Your task to perform on an android device: Go to eBay Image 0: 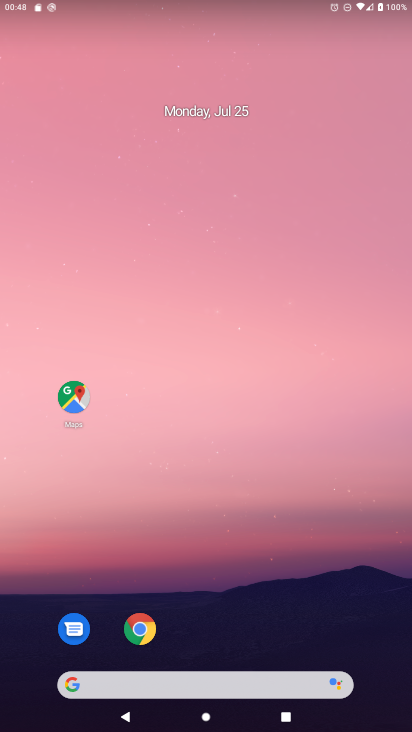
Step 0: drag from (193, 599) to (276, 20)
Your task to perform on an android device: Go to eBay Image 1: 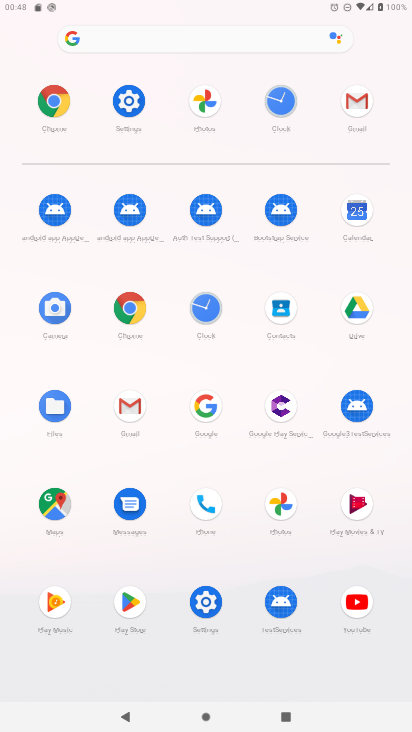
Step 1: click (157, 37)
Your task to perform on an android device: Go to eBay Image 2: 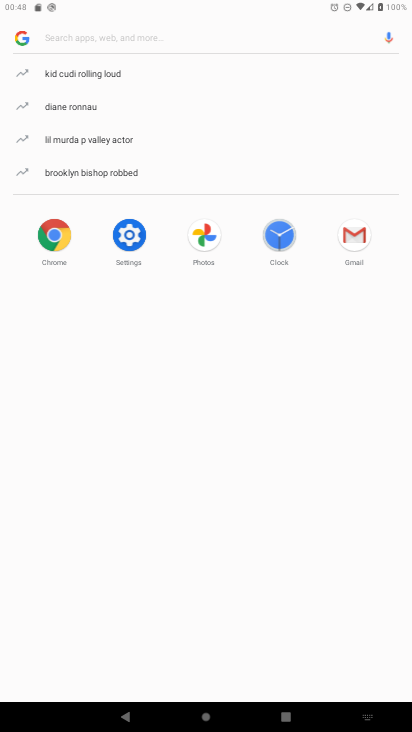
Step 2: type "eBay"
Your task to perform on an android device: Go to eBay Image 3: 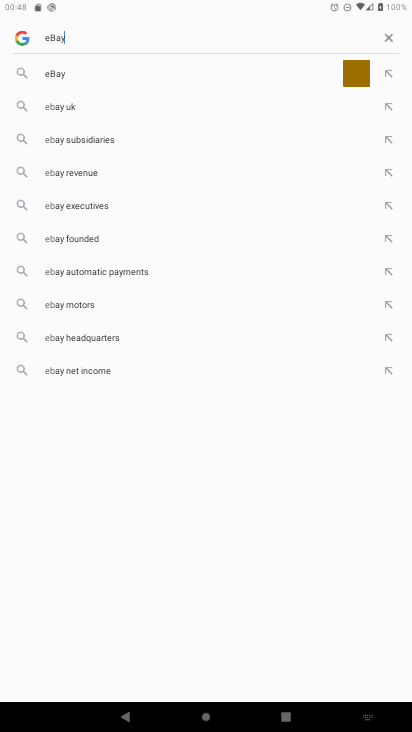
Step 3: type ""
Your task to perform on an android device: Go to eBay Image 4: 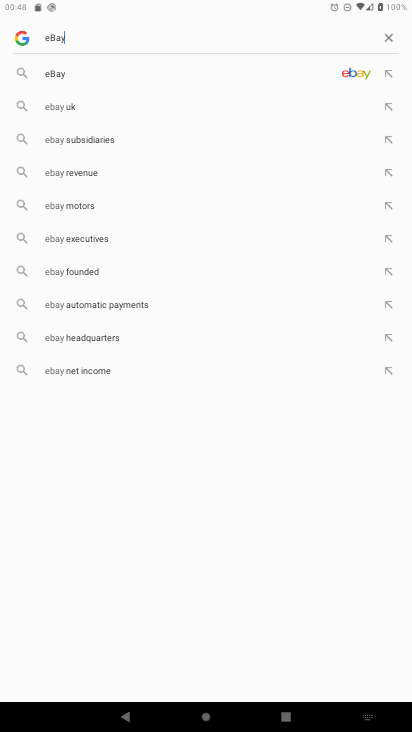
Step 4: click (167, 70)
Your task to perform on an android device: Go to eBay Image 5: 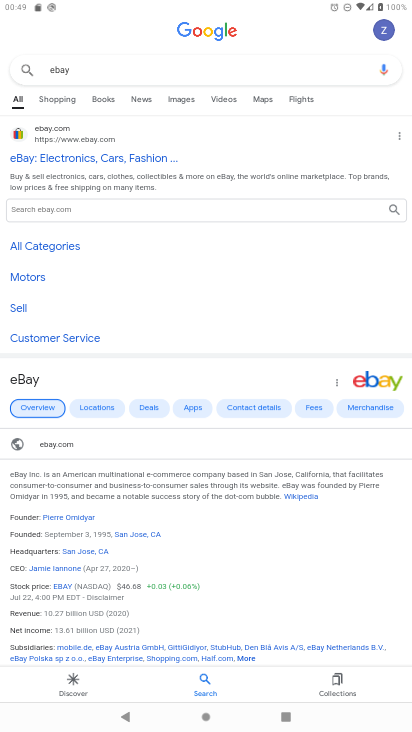
Step 5: drag from (223, 535) to (266, 224)
Your task to perform on an android device: Go to eBay Image 6: 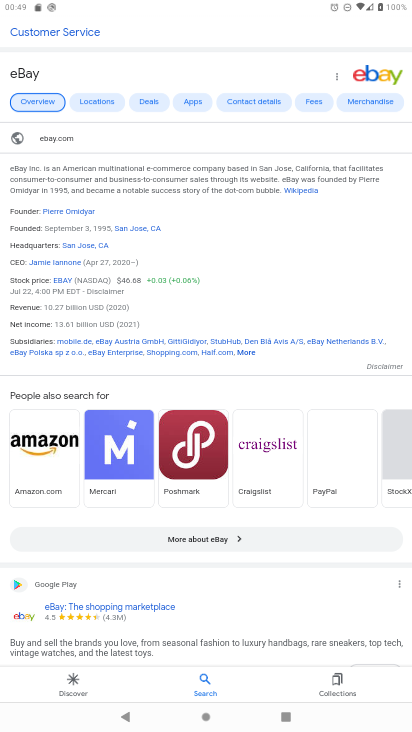
Step 6: drag from (238, 237) to (167, 712)
Your task to perform on an android device: Go to eBay Image 7: 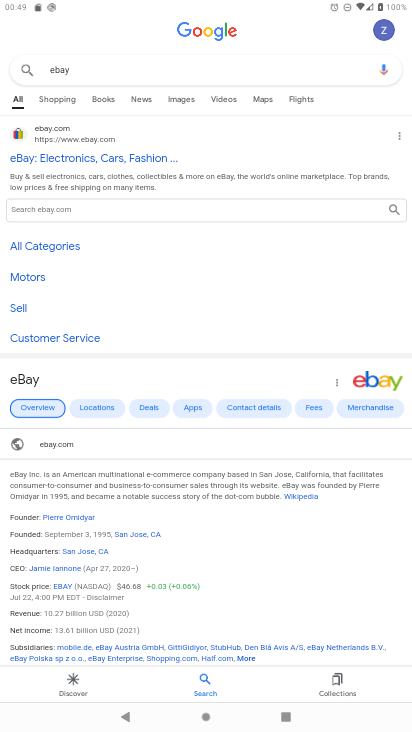
Step 7: click (43, 160)
Your task to perform on an android device: Go to eBay Image 8: 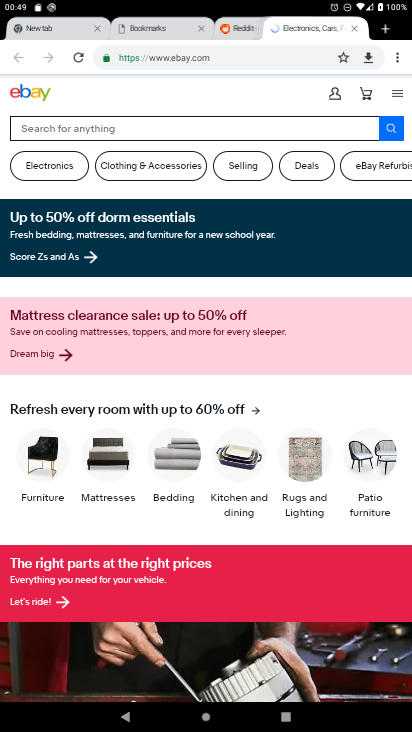
Step 8: task complete